Your task to perform on an android device: find snoozed emails in the gmail app Image 0: 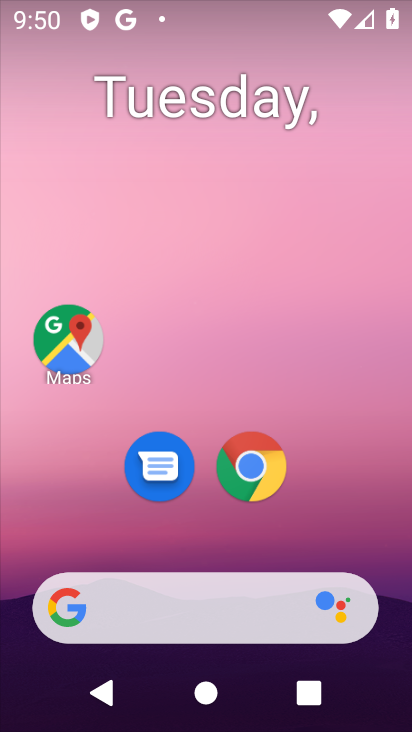
Step 0: drag from (345, 467) to (234, 2)
Your task to perform on an android device: find snoozed emails in the gmail app Image 1: 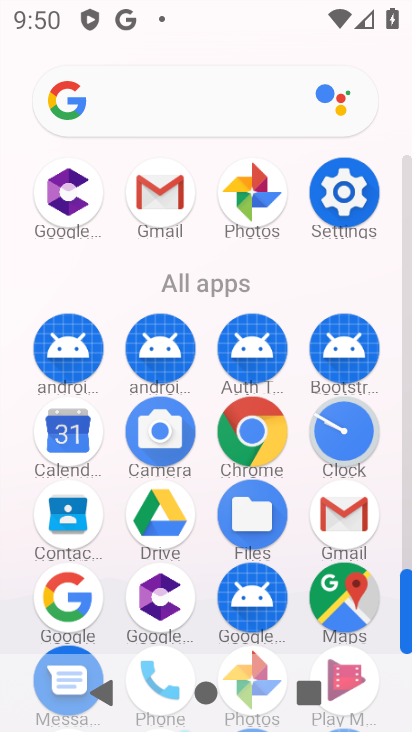
Step 1: click (168, 192)
Your task to perform on an android device: find snoozed emails in the gmail app Image 2: 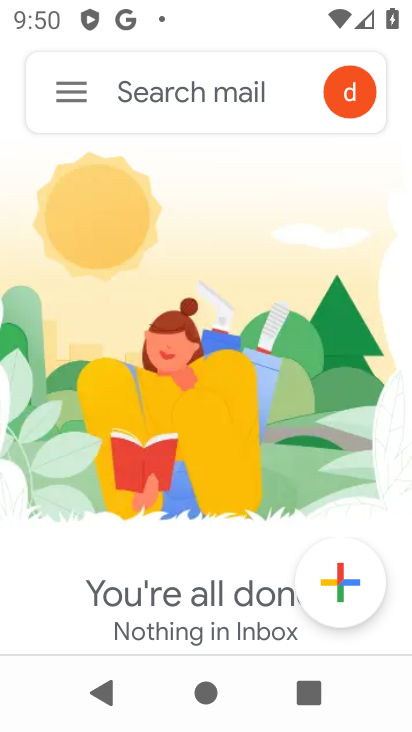
Step 2: click (46, 84)
Your task to perform on an android device: find snoozed emails in the gmail app Image 3: 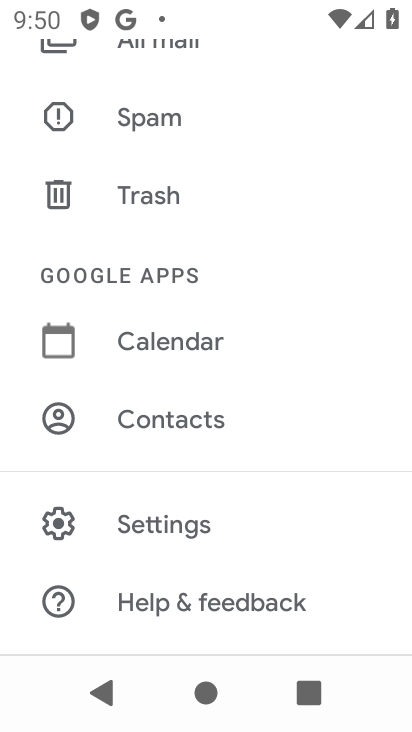
Step 3: drag from (245, 217) to (275, 526)
Your task to perform on an android device: find snoozed emails in the gmail app Image 4: 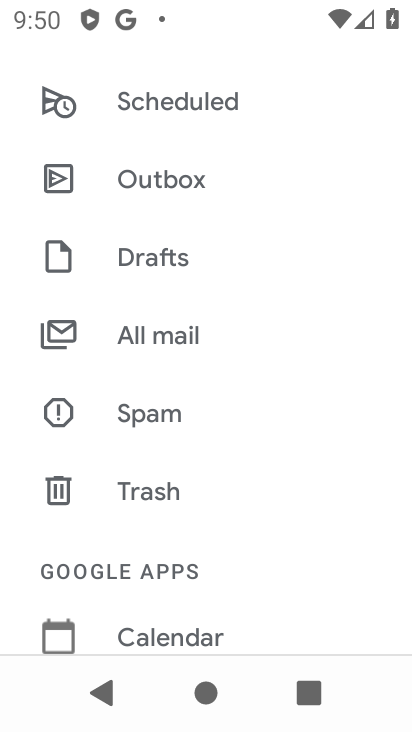
Step 4: drag from (194, 415) to (202, 618)
Your task to perform on an android device: find snoozed emails in the gmail app Image 5: 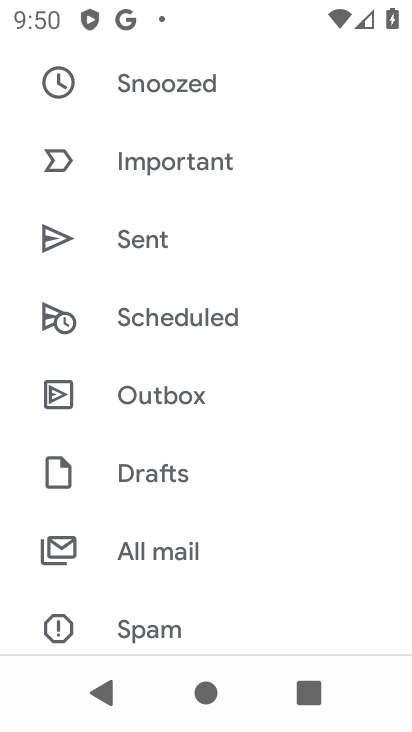
Step 5: click (172, 94)
Your task to perform on an android device: find snoozed emails in the gmail app Image 6: 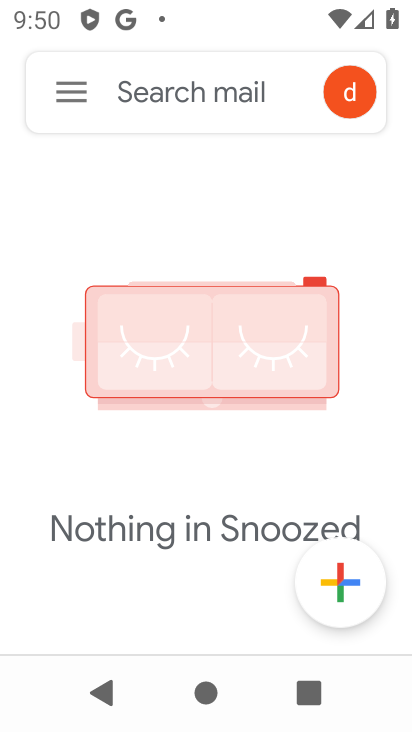
Step 6: task complete